Your task to perform on an android device: turn off location history Image 0: 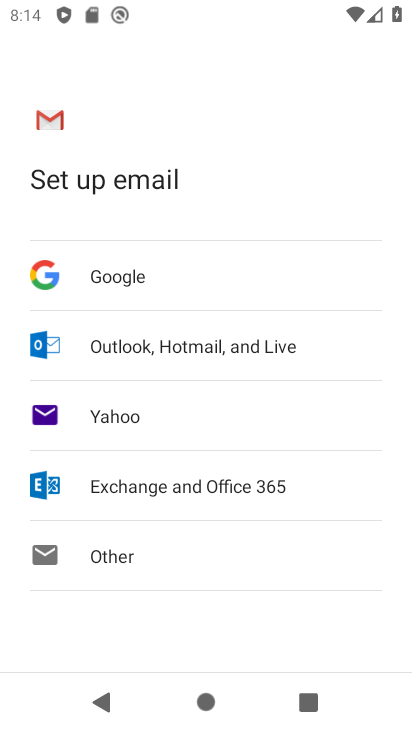
Step 0: press home button
Your task to perform on an android device: turn off location history Image 1: 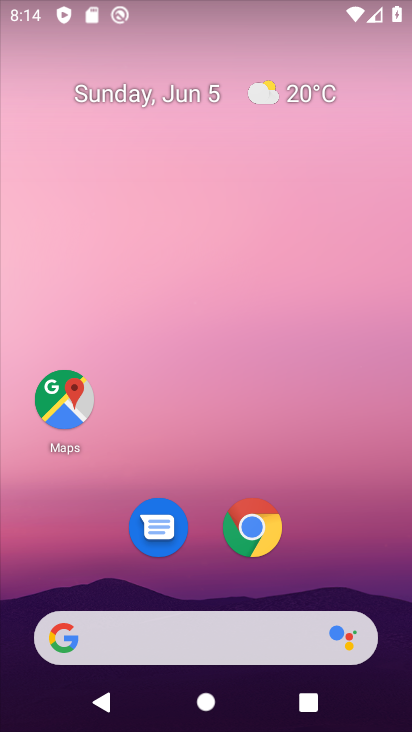
Step 1: drag from (346, 549) to (206, 4)
Your task to perform on an android device: turn off location history Image 2: 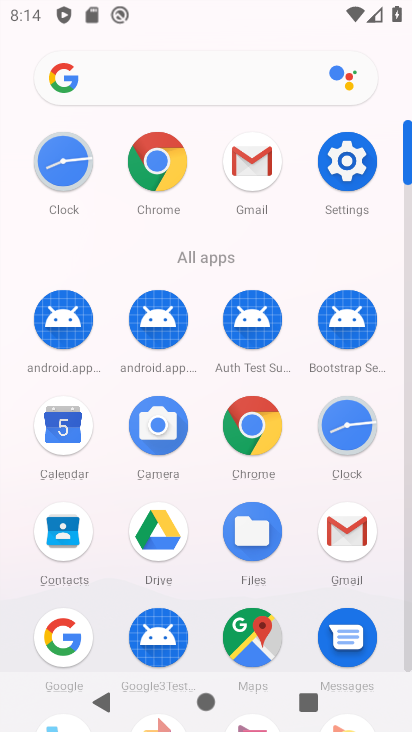
Step 2: click (355, 174)
Your task to perform on an android device: turn off location history Image 3: 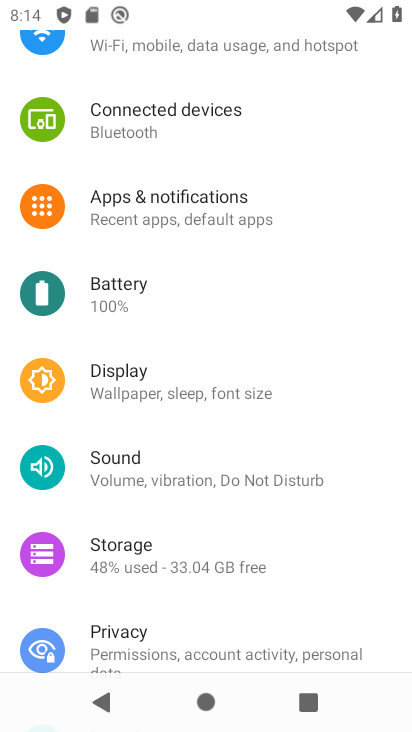
Step 3: drag from (197, 584) to (165, 230)
Your task to perform on an android device: turn off location history Image 4: 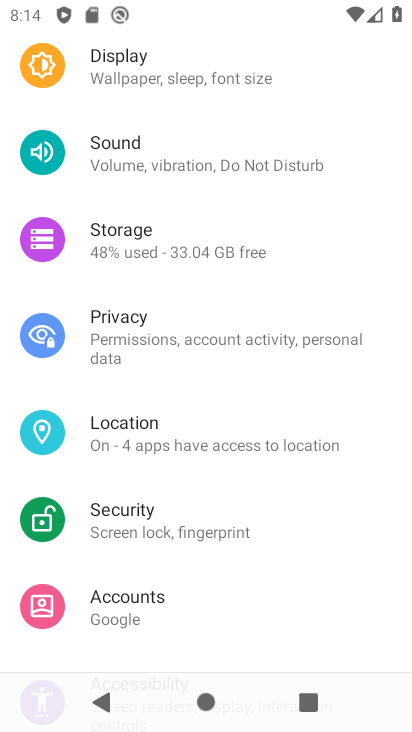
Step 4: click (201, 443)
Your task to perform on an android device: turn off location history Image 5: 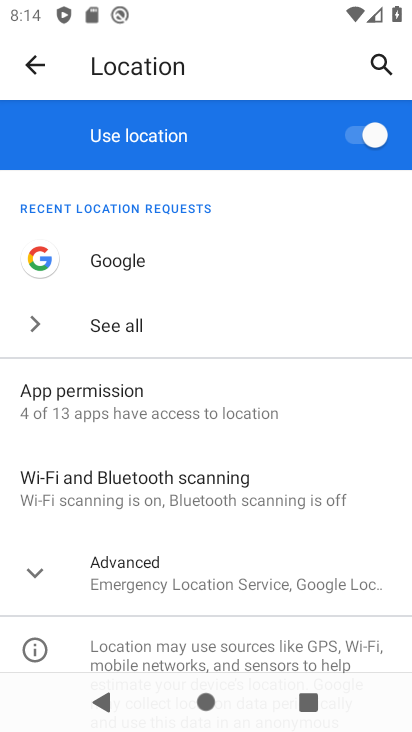
Step 5: drag from (191, 598) to (191, 295)
Your task to perform on an android device: turn off location history Image 6: 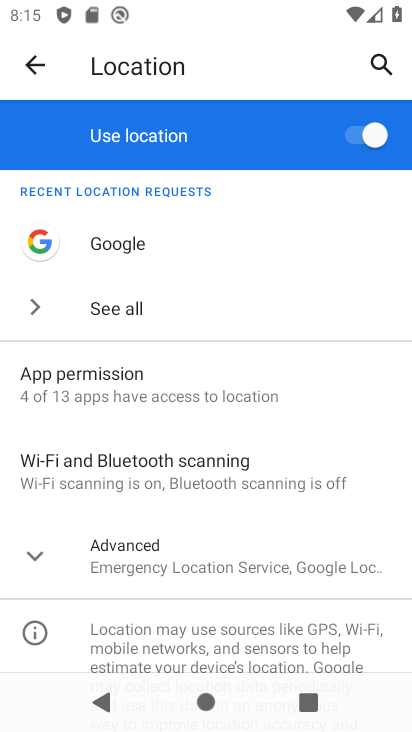
Step 6: click (152, 569)
Your task to perform on an android device: turn off location history Image 7: 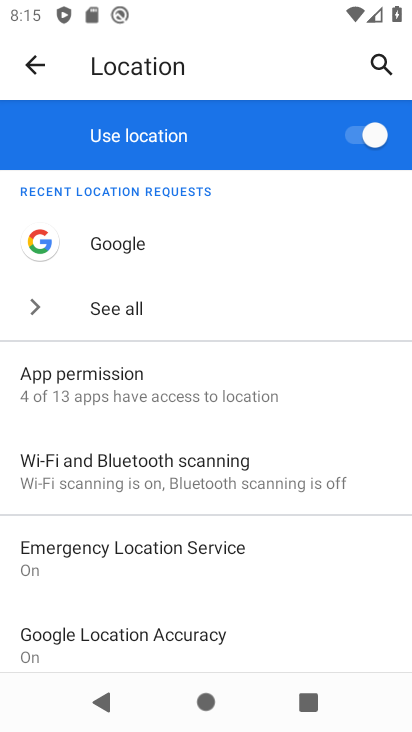
Step 7: drag from (171, 604) to (72, 176)
Your task to perform on an android device: turn off location history Image 8: 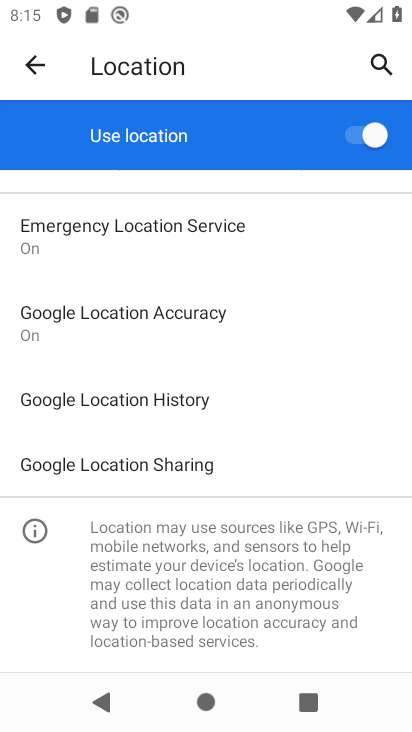
Step 8: click (84, 397)
Your task to perform on an android device: turn off location history Image 9: 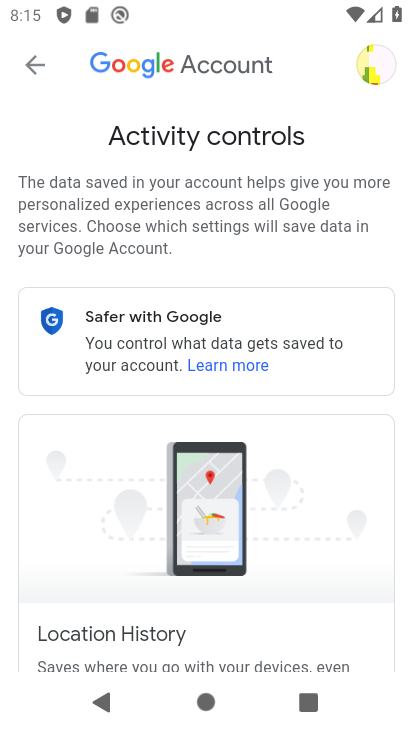
Step 9: drag from (252, 579) to (207, 198)
Your task to perform on an android device: turn off location history Image 10: 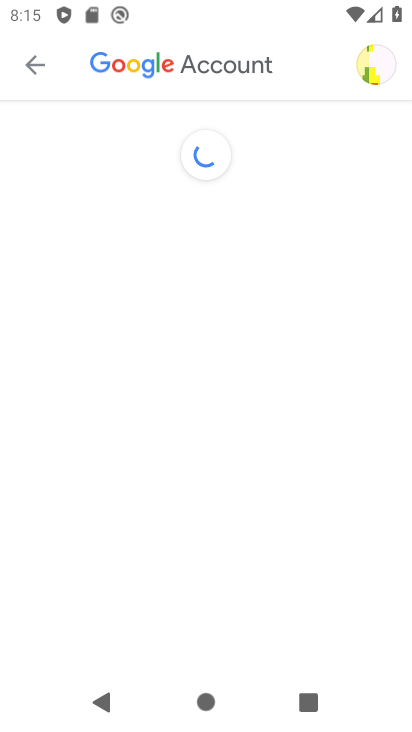
Step 10: click (323, 438)
Your task to perform on an android device: turn off location history Image 11: 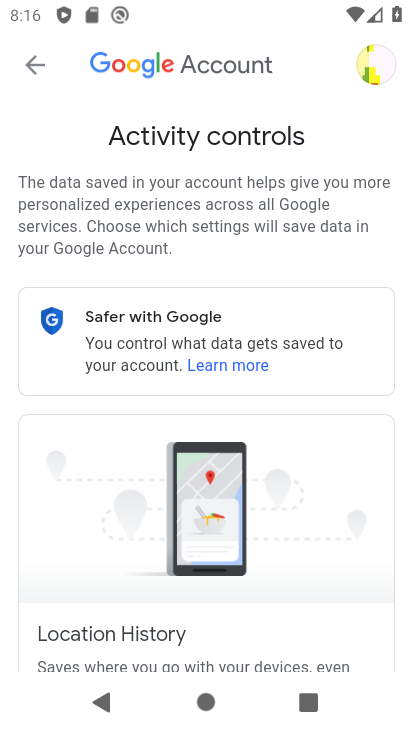
Step 11: drag from (250, 561) to (258, 57)
Your task to perform on an android device: turn off location history Image 12: 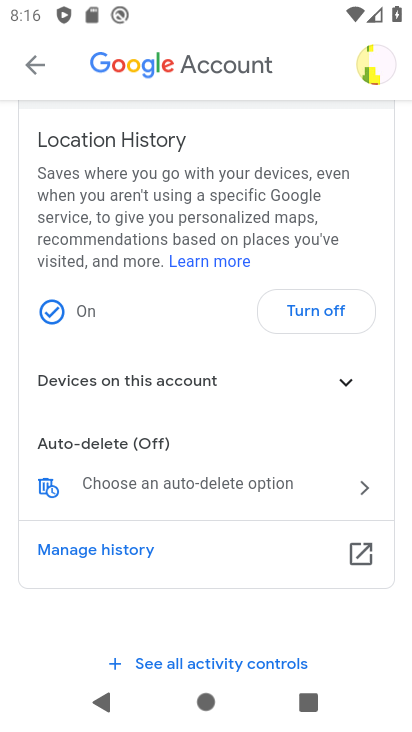
Step 12: drag from (164, 469) to (143, 84)
Your task to perform on an android device: turn off location history Image 13: 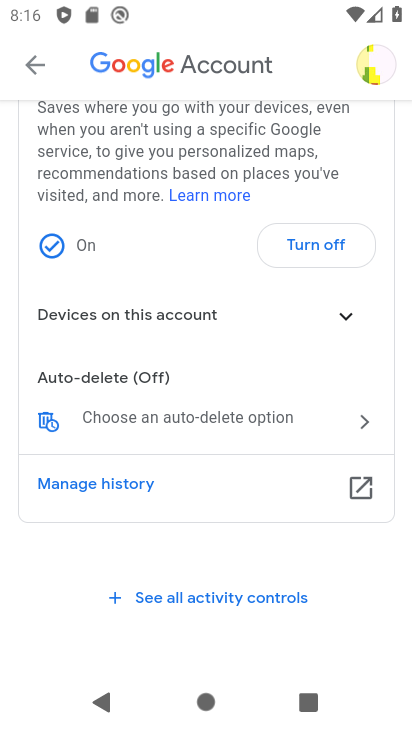
Step 13: click (327, 246)
Your task to perform on an android device: turn off location history Image 14: 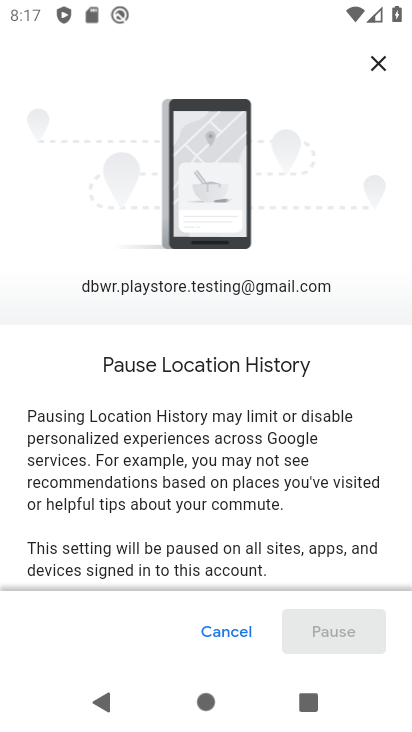
Step 14: drag from (328, 524) to (317, 118)
Your task to perform on an android device: turn off location history Image 15: 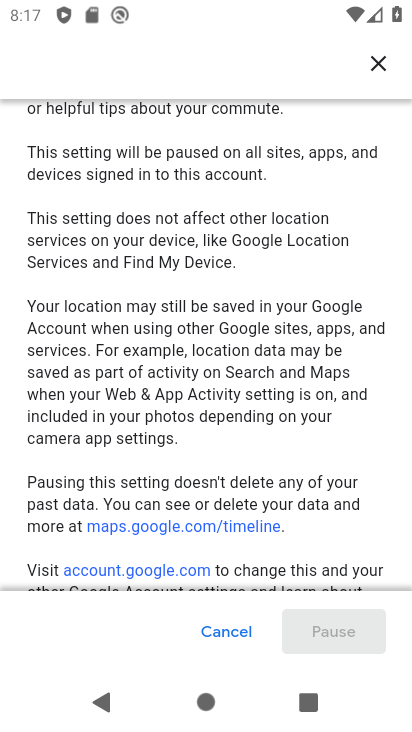
Step 15: drag from (280, 501) to (276, 103)
Your task to perform on an android device: turn off location history Image 16: 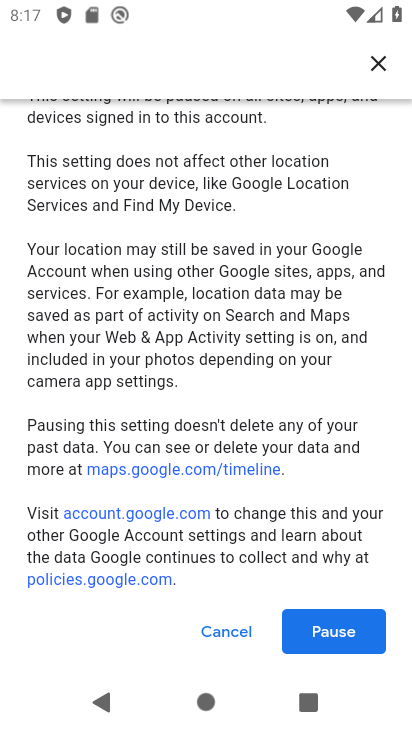
Step 16: drag from (225, 491) to (211, 76)
Your task to perform on an android device: turn off location history Image 17: 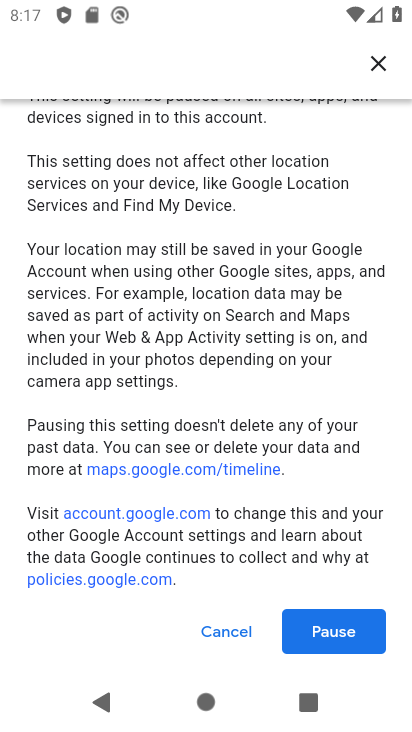
Step 17: click (336, 629)
Your task to perform on an android device: turn off location history Image 18: 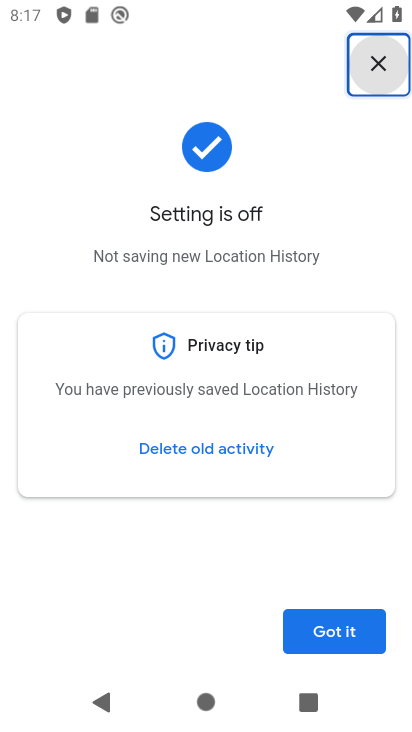
Step 18: click (349, 635)
Your task to perform on an android device: turn off location history Image 19: 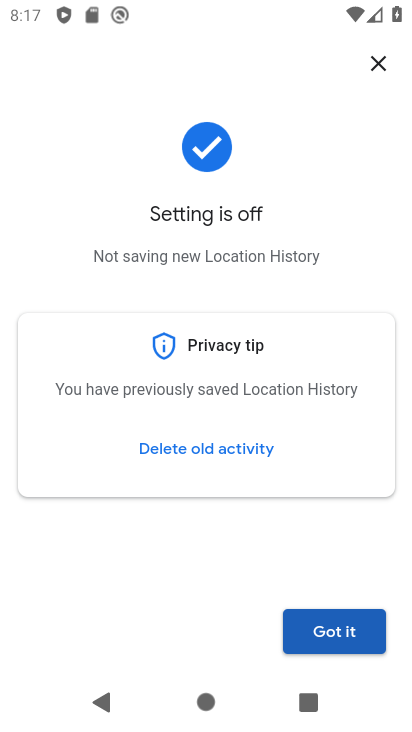
Step 19: click (336, 642)
Your task to perform on an android device: turn off location history Image 20: 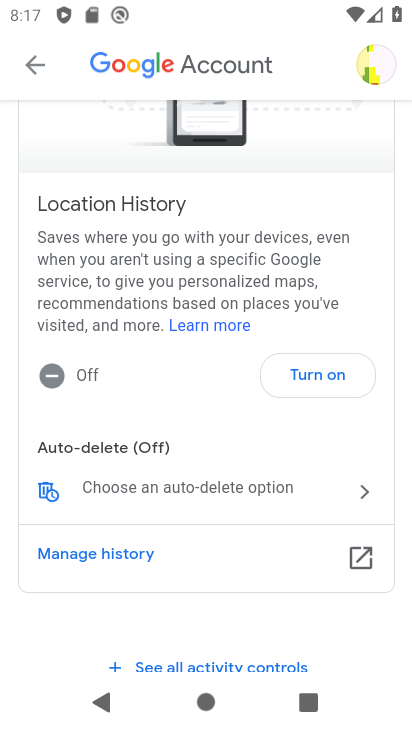
Step 20: task complete